Your task to perform on an android device: Open calendar and show me the fourth week of next month Image 0: 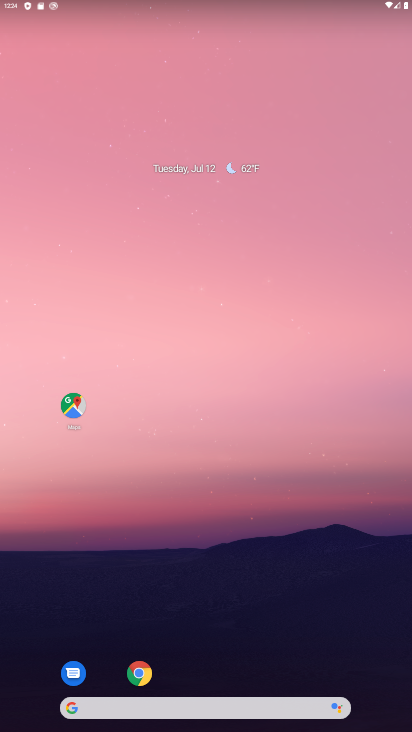
Step 0: drag from (231, 665) to (200, 45)
Your task to perform on an android device: Open calendar and show me the fourth week of next month Image 1: 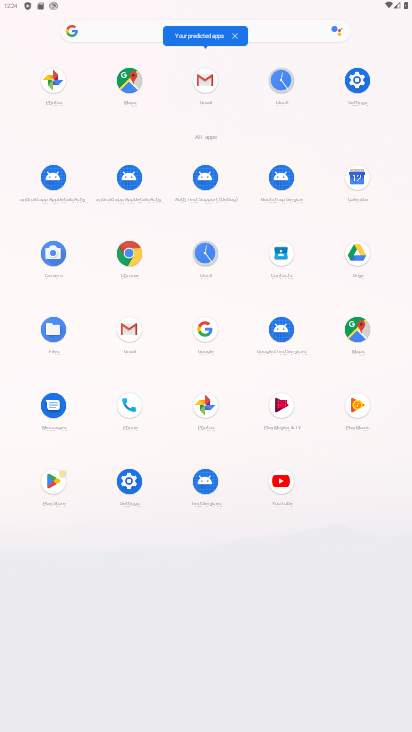
Step 1: click (354, 174)
Your task to perform on an android device: Open calendar and show me the fourth week of next month Image 2: 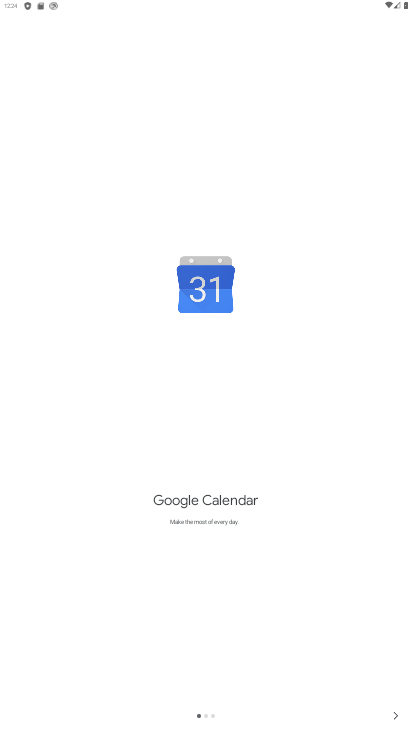
Step 2: click (394, 713)
Your task to perform on an android device: Open calendar and show me the fourth week of next month Image 3: 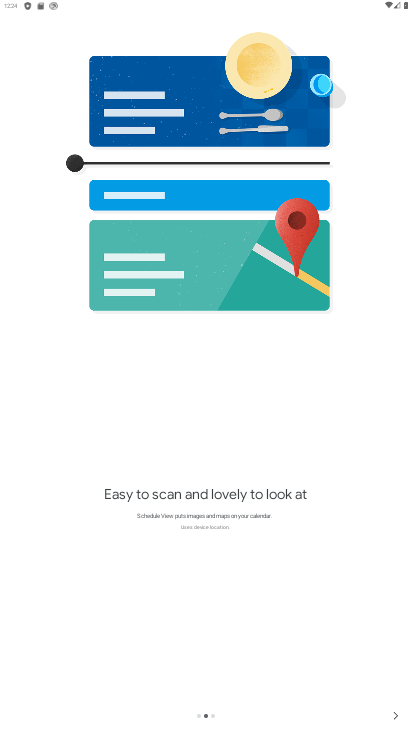
Step 3: click (396, 712)
Your task to perform on an android device: Open calendar and show me the fourth week of next month Image 4: 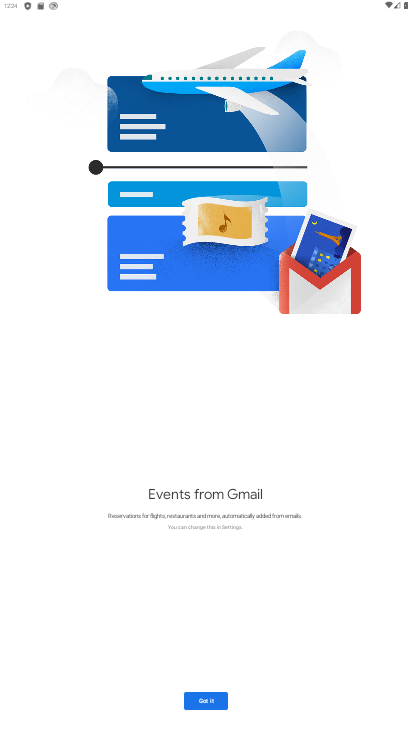
Step 4: click (206, 701)
Your task to perform on an android device: Open calendar and show me the fourth week of next month Image 5: 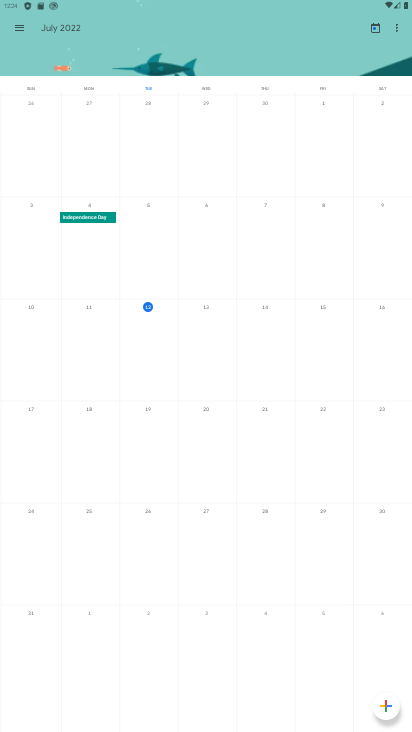
Step 5: drag from (381, 259) to (13, 639)
Your task to perform on an android device: Open calendar and show me the fourth week of next month Image 6: 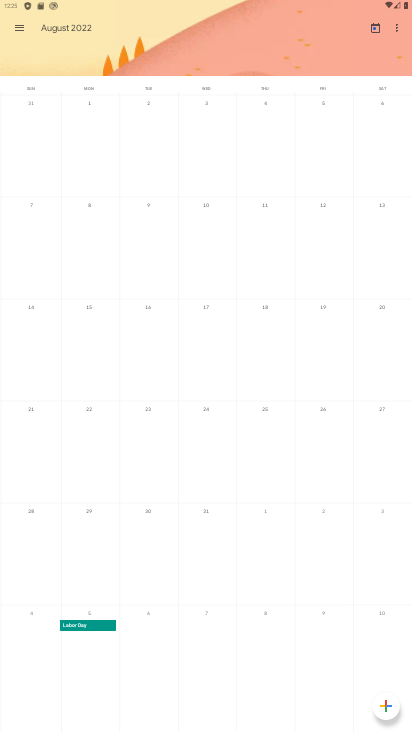
Step 6: click (27, 426)
Your task to perform on an android device: Open calendar and show me the fourth week of next month Image 7: 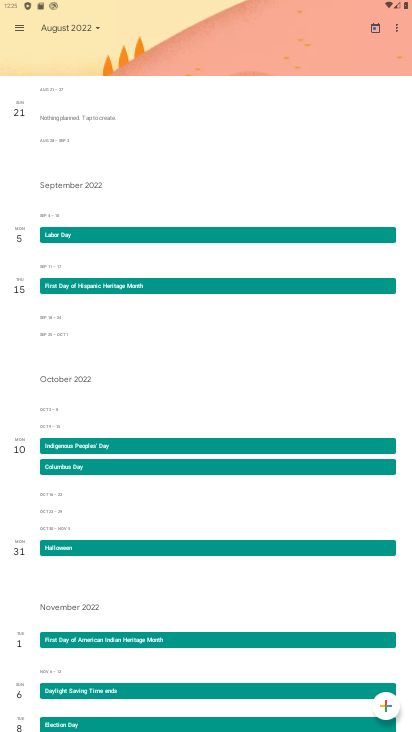
Step 7: task complete